Your task to perform on an android device: Is it going to rain today? Image 0: 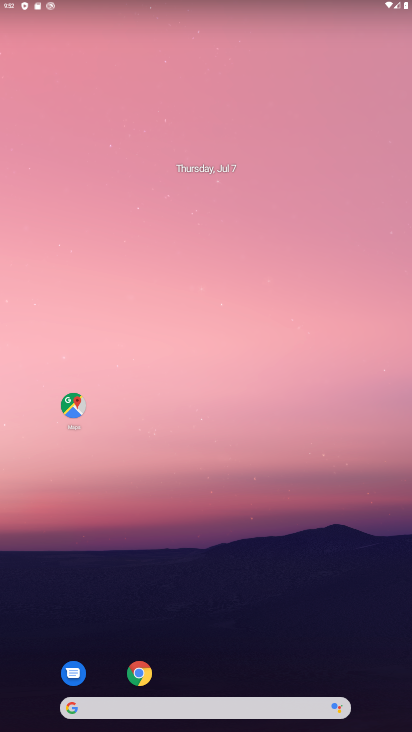
Step 0: press home button
Your task to perform on an android device: Is it going to rain today? Image 1: 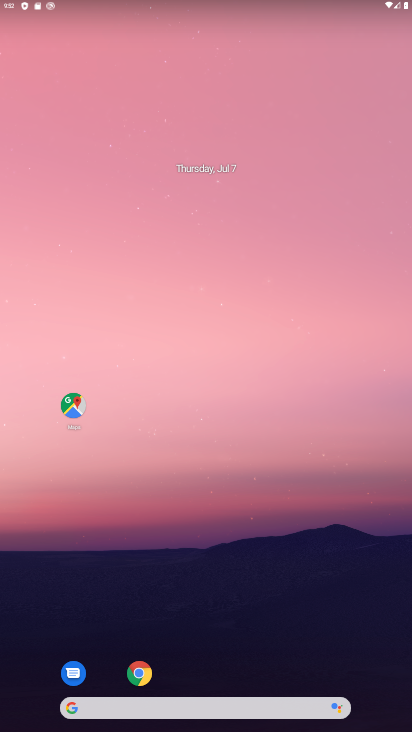
Step 1: click (138, 666)
Your task to perform on an android device: Is it going to rain today? Image 2: 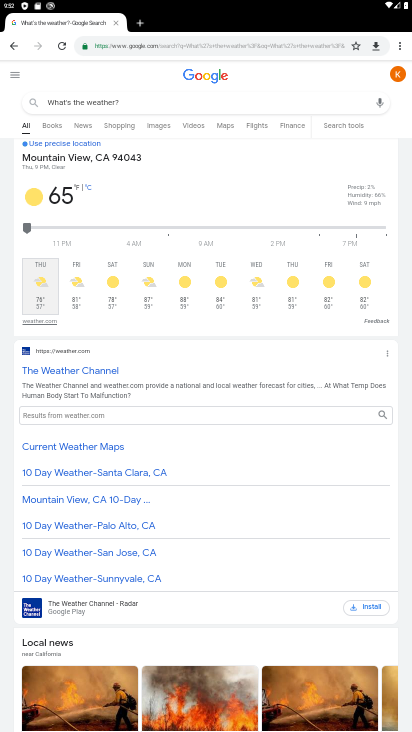
Step 2: click (170, 46)
Your task to perform on an android device: Is it going to rain today? Image 3: 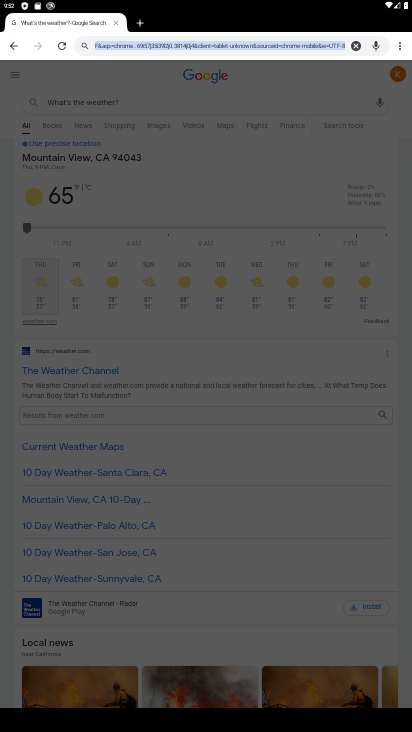
Step 3: type "Is it going to rain today?"
Your task to perform on an android device: Is it going to rain today? Image 4: 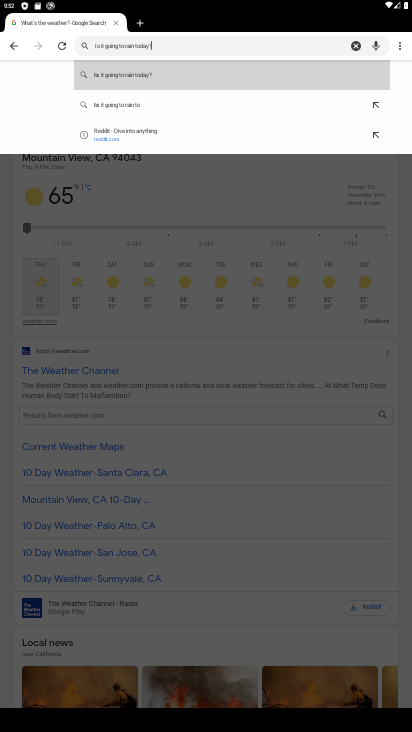
Step 4: type ""
Your task to perform on an android device: Is it going to rain today? Image 5: 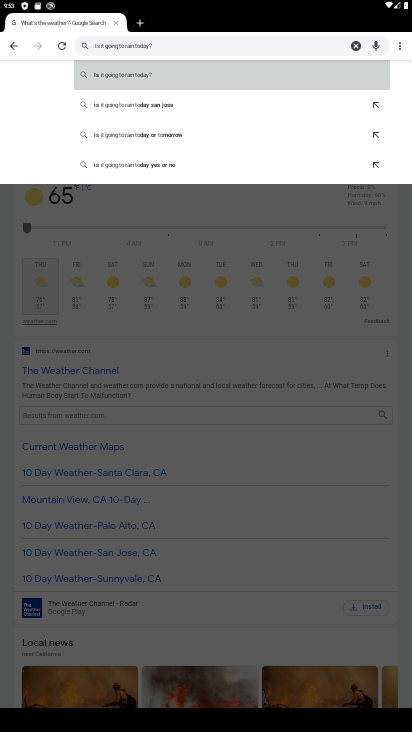
Step 5: click (200, 77)
Your task to perform on an android device: Is it going to rain today? Image 6: 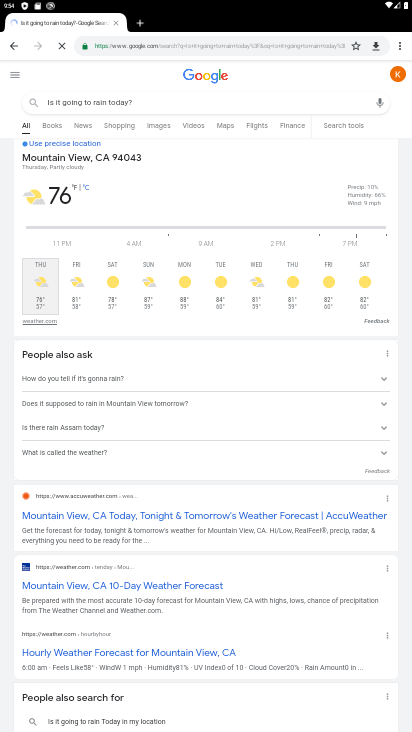
Step 6: task complete